Your task to perform on an android device: check storage Image 0: 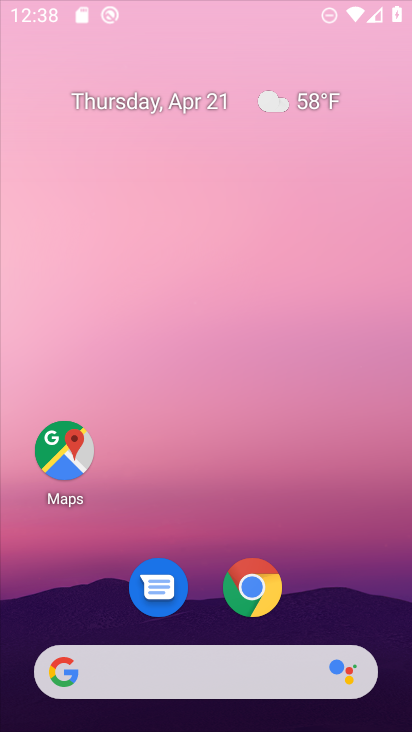
Step 0: click (269, 393)
Your task to perform on an android device: check storage Image 1: 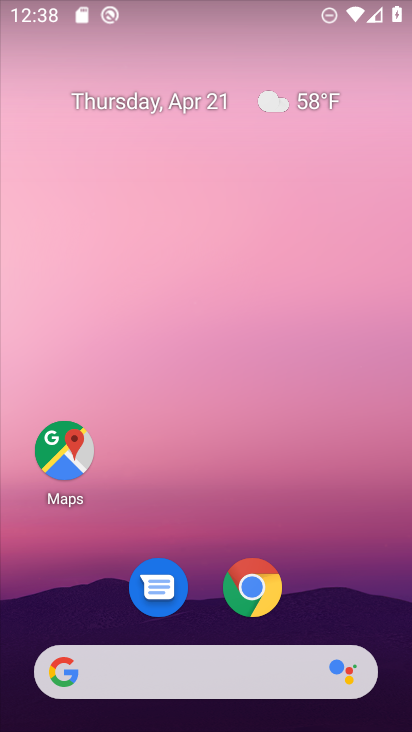
Step 1: drag from (200, 611) to (300, 2)
Your task to perform on an android device: check storage Image 2: 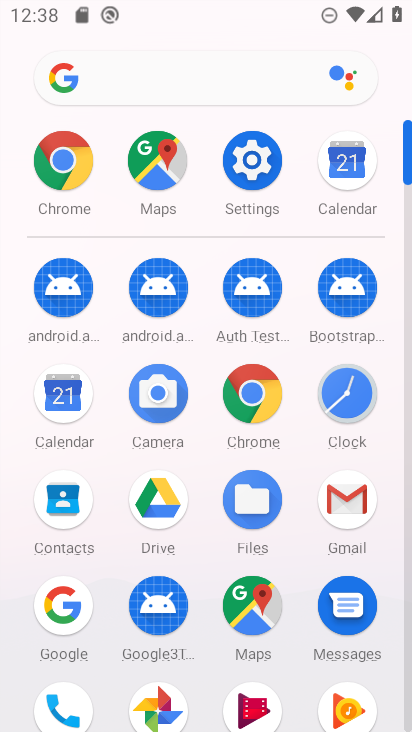
Step 2: click (252, 161)
Your task to perform on an android device: check storage Image 3: 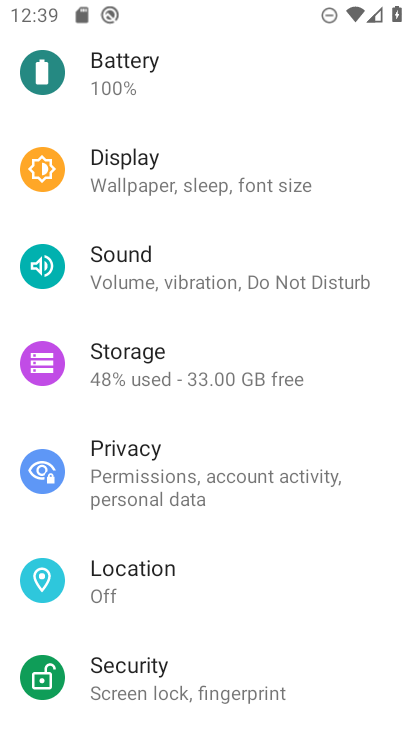
Step 3: click (145, 367)
Your task to perform on an android device: check storage Image 4: 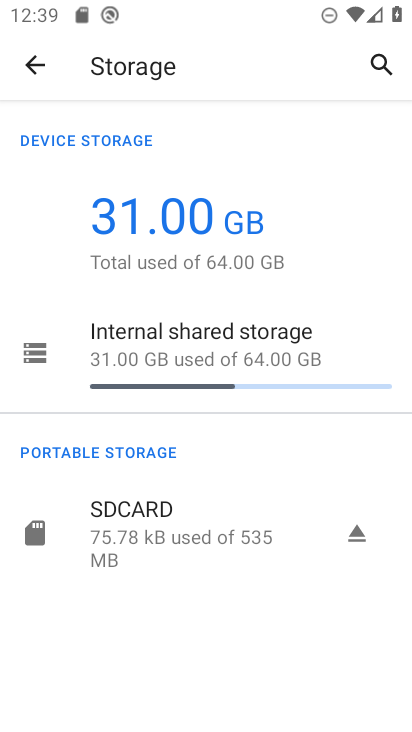
Step 4: click (162, 359)
Your task to perform on an android device: check storage Image 5: 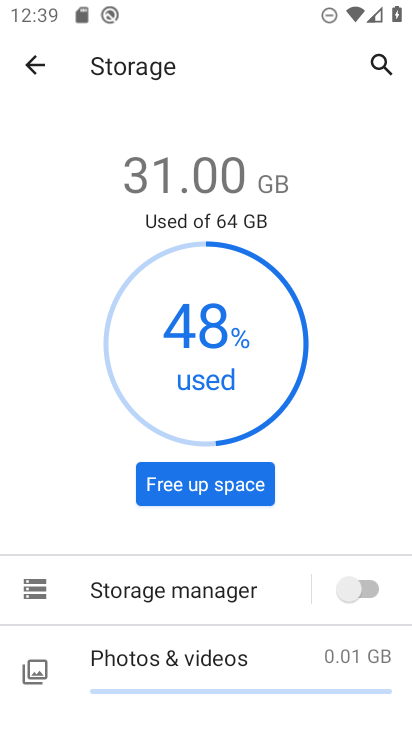
Step 5: task complete